Your task to perform on an android device: open wifi settings Image 0: 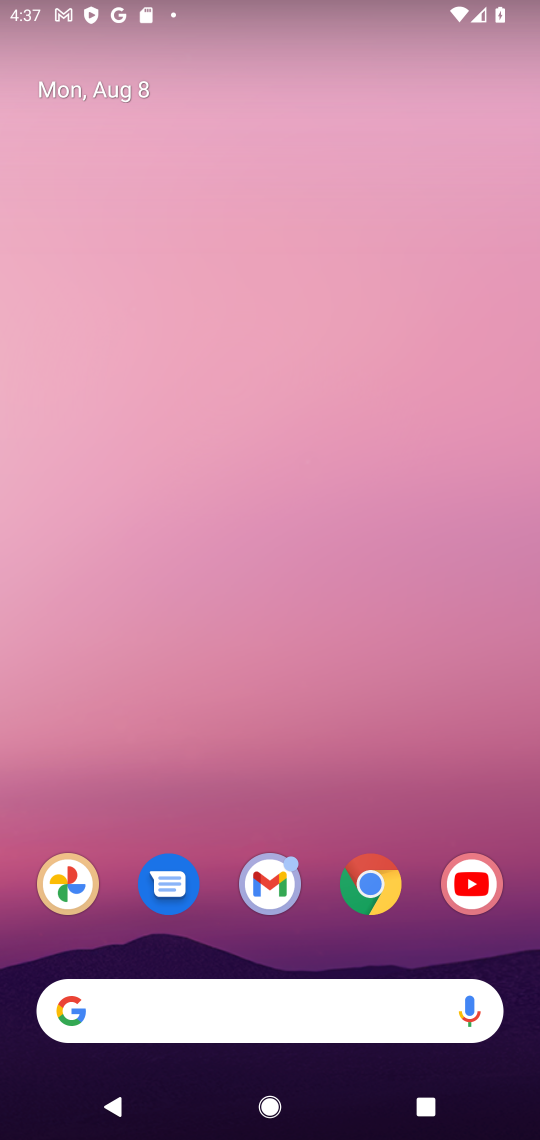
Step 0: drag from (272, 1030) to (218, 565)
Your task to perform on an android device: open wifi settings Image 1: 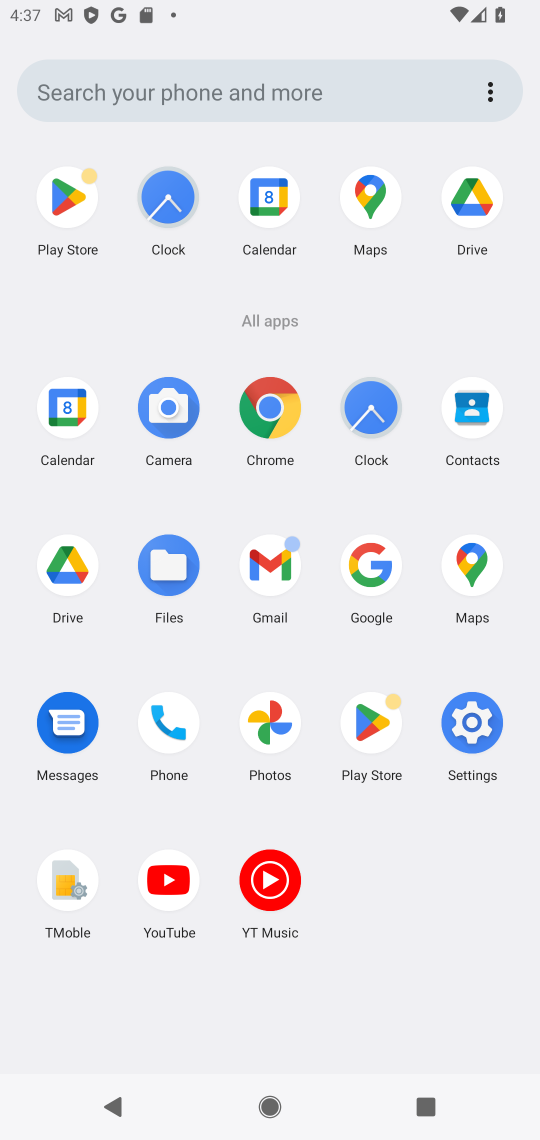
Step 1: click (479, 744)
Your task to perform on an android device: open wifi settings Image 2: 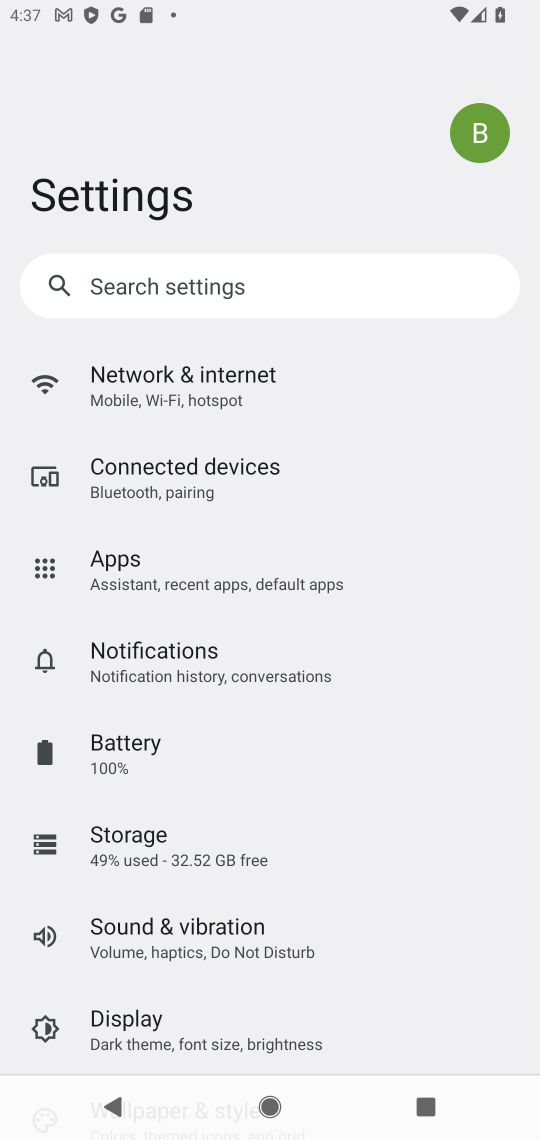
Step 2: click (167, 382)
Your task to perform on an android device: open wifi settings Image 3: 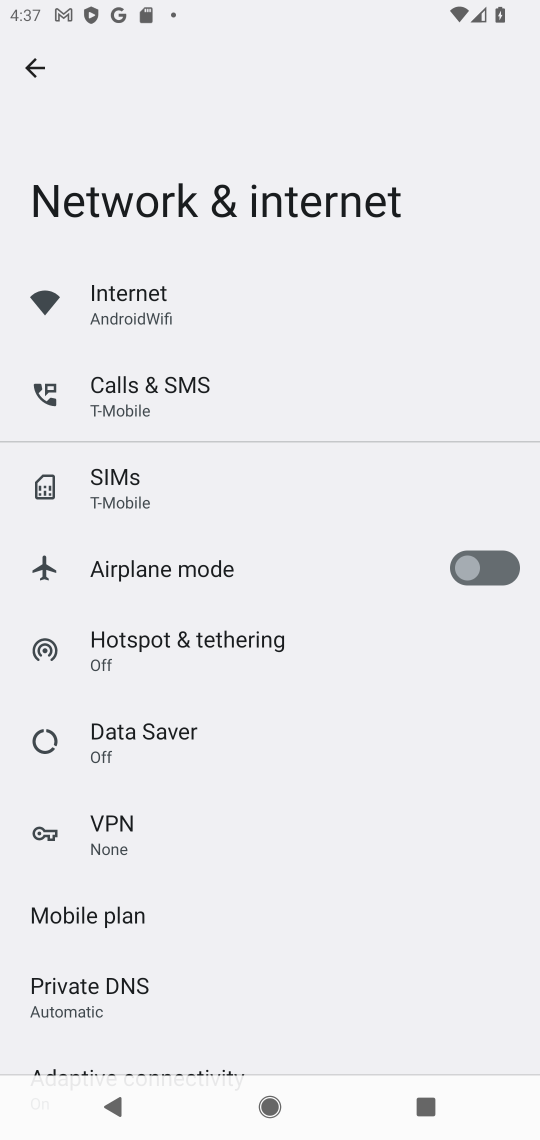
Step 3: click (141, 315)
Your task to perform on an android device: open wifi settings Image 4: 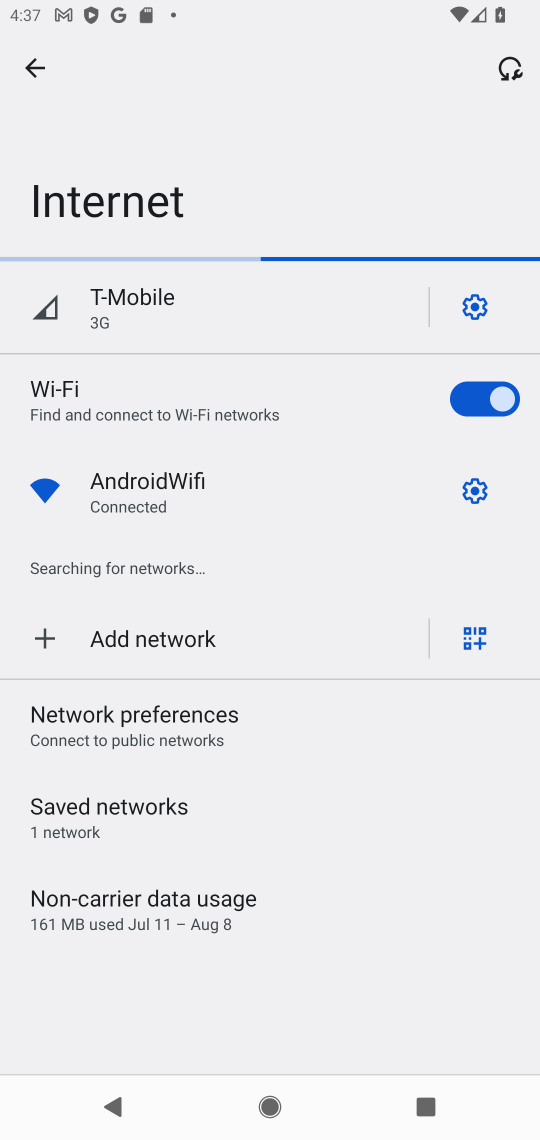
Step 4: click (193, 503)
Your task to perform on an android device: open wifi settings Image 5: 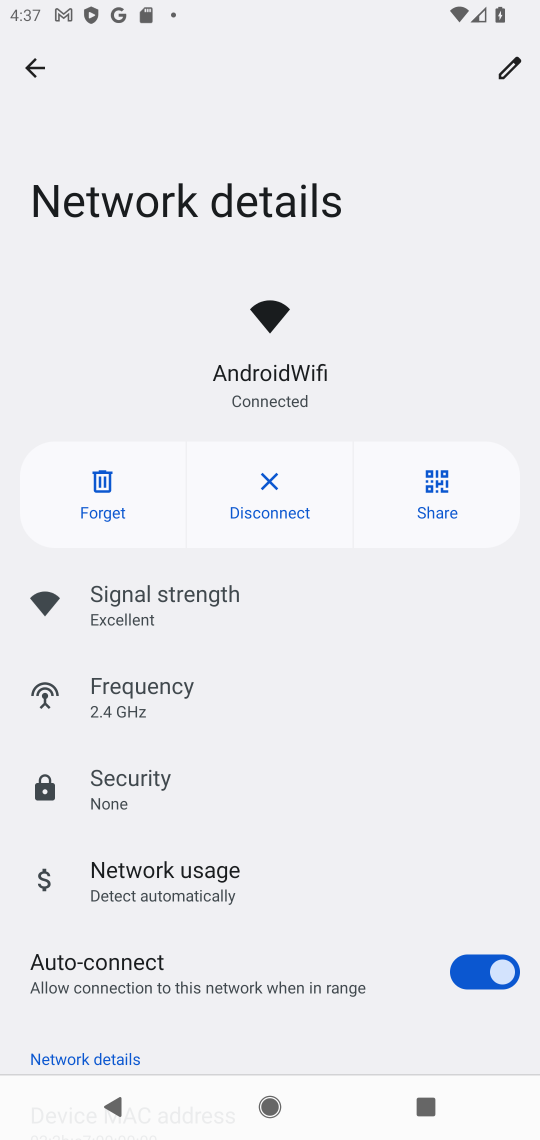
Step 5: task complete